Your task to perform on an android device: Go to Yahoo.com Image 0: 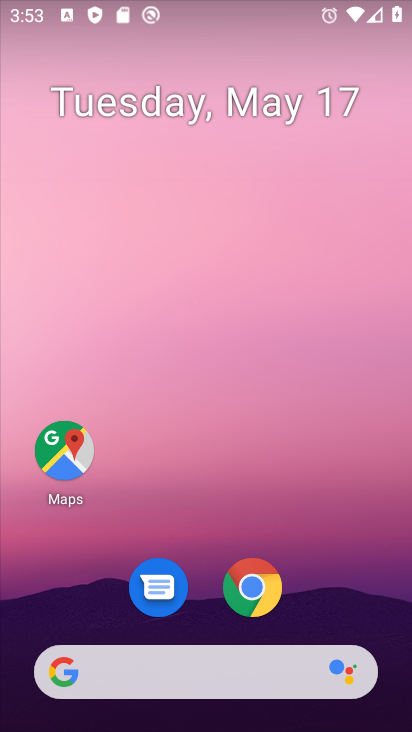
Step 0: drag from (234, 273) to (235, 2)
Your task to perform on an android device: Go to Yahoo.com Image 1: 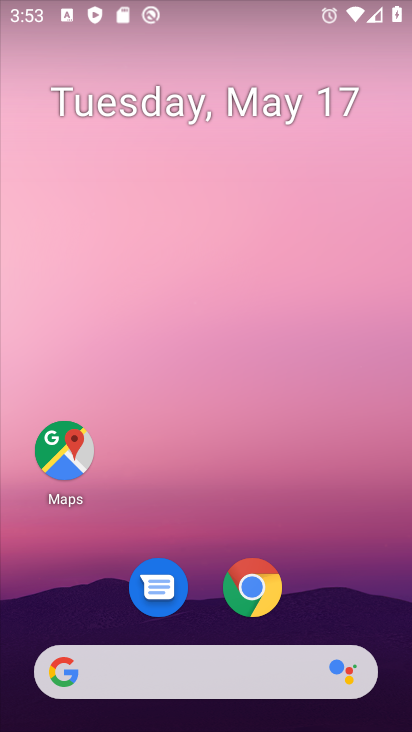
Step 1: drag from (213, 624) to (215, 0)
Your task to perform on an android device: Go to Yahoo.com Image 2: 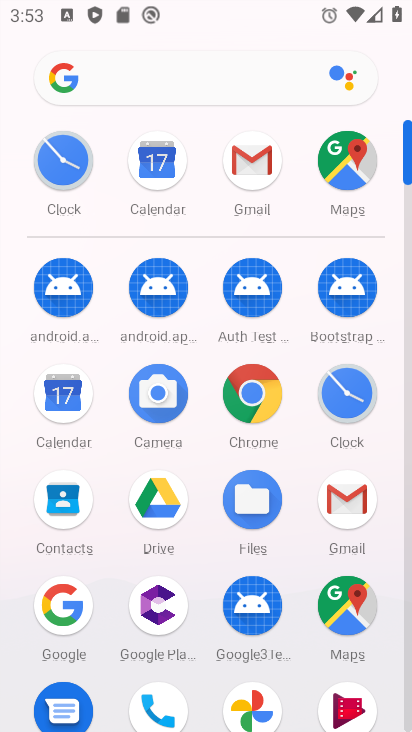
Step 2: drag from (206, 675) to (196, 321)
Your task to perform on an android device: Go to Yahoo.com Image 3: 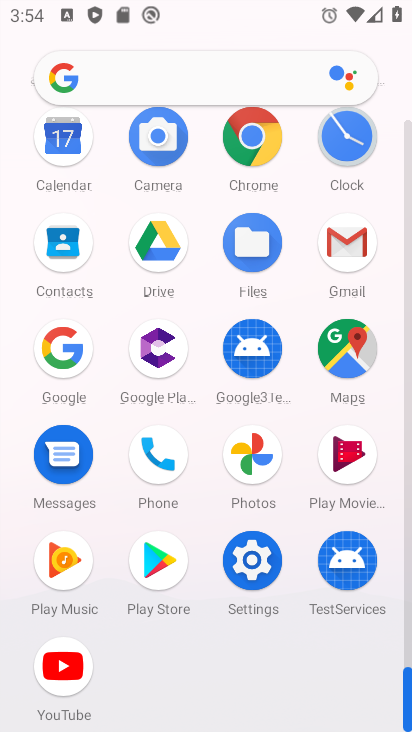
Step 3: click (160, 73)
Your task to perform on an android device: Go to Yahoo.com Image 4: 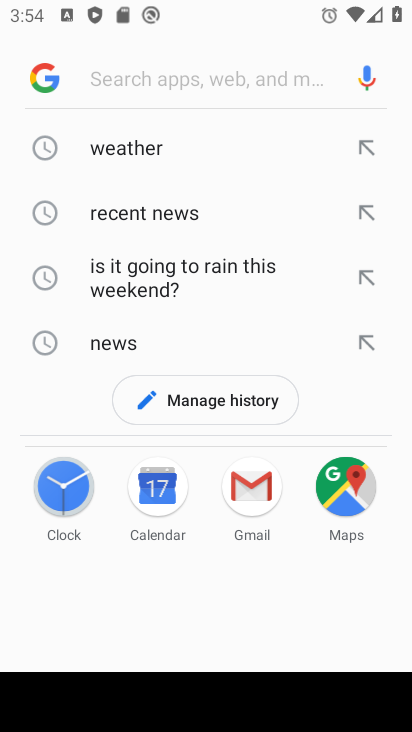
Step 4: type "yahoo.com"
Your task to perform on an android device: Go to Yahoo.com Image 5: 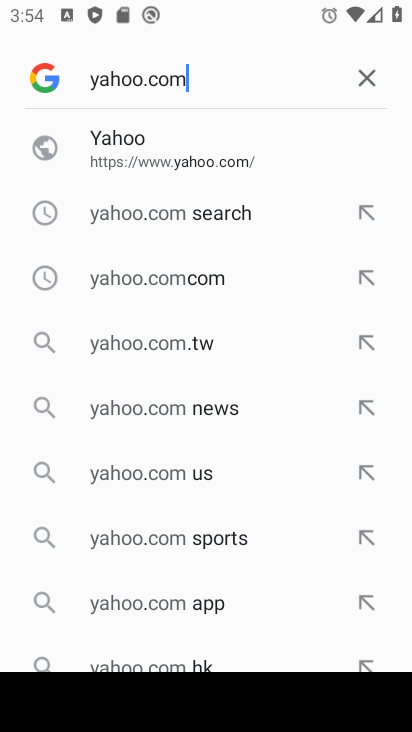
Step 5: click (145, 163)
Your task to perform on an android device: Go to Yahoo.com Image 6: 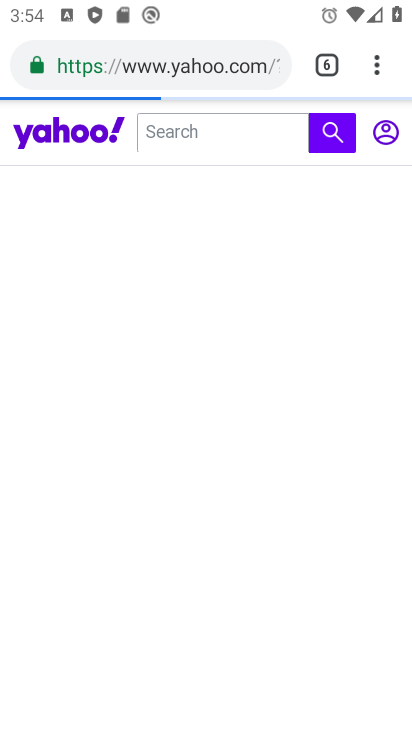
Step 6: task complete